Your task to perform on an android device: turn notification dots off Image 0: 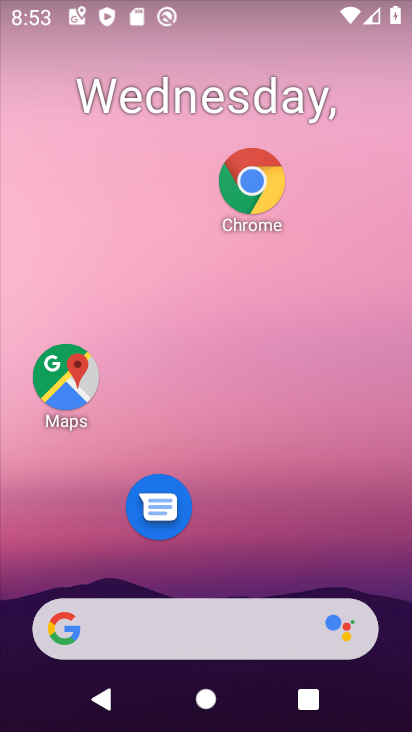
Step 0: drag from (269, 464) to (288, 356)
Your task to perform on an android device: turn notification dots off Image 1: 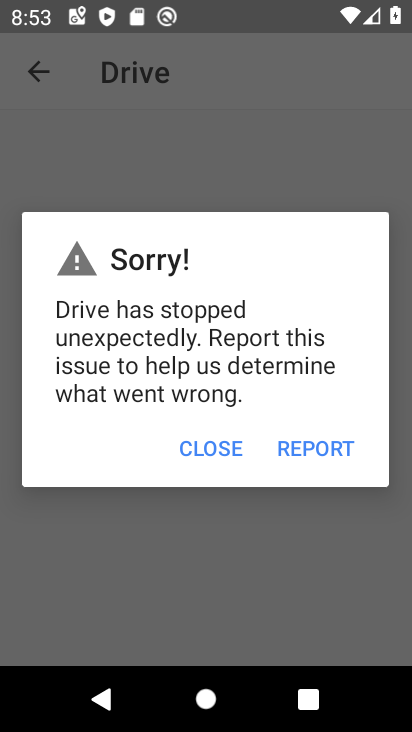
Step 1: press home button
Your task to perform on an android device: turn notification dots off Image 2: 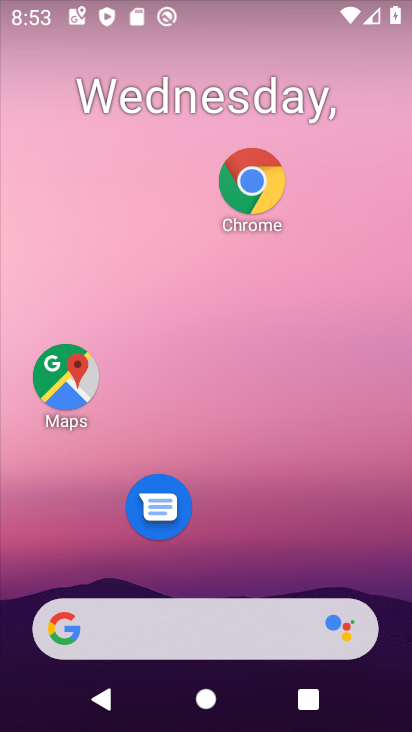
Step 2: drag from (300, 564) to (300, 232)
Your task to perform on an android device: turn notification dots off Image 3: 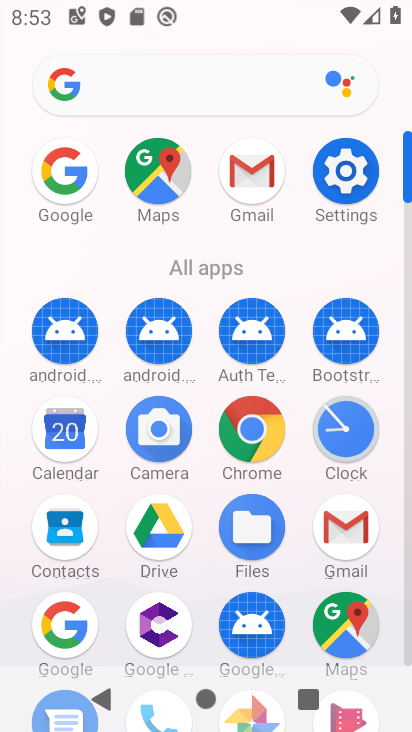
Step 3: click (344, 190)
Your task to perform on an android device: turn notification dots off Image 4: 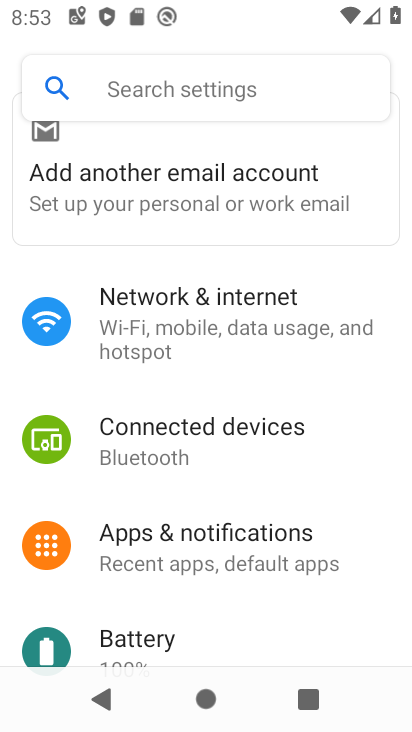
Step 4: drag from (229, 537) to (256, 410)
Your task to perform on an android device: turn notification dots off Image 5: 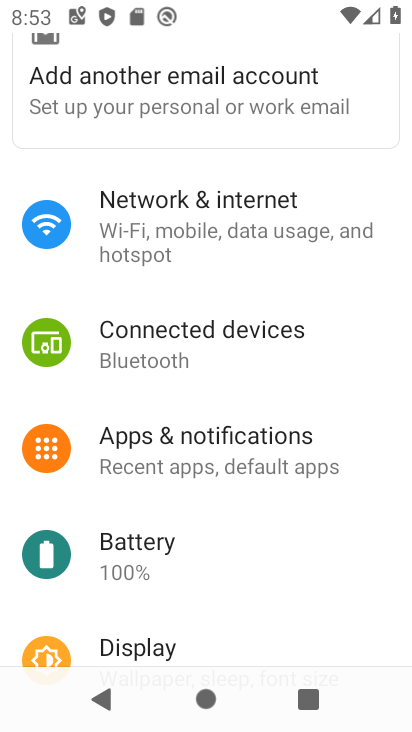
Step 5: click (245, 445)
Your task to perform on an android device: turn notification dots off Image 6: 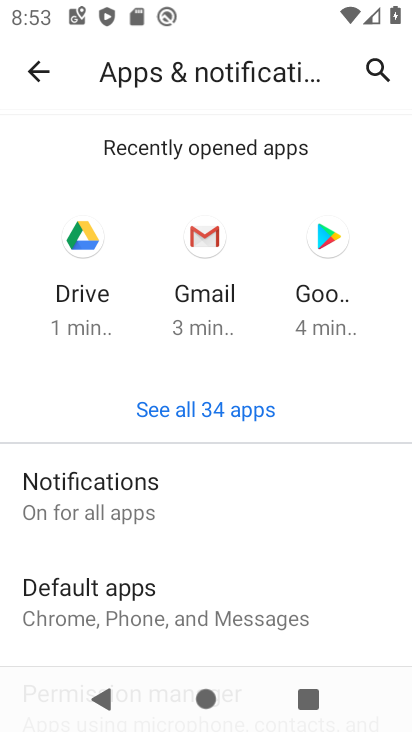
Step 6: click (214, 497)
Your task to perform on an android device: turn notification dots off Image 7: 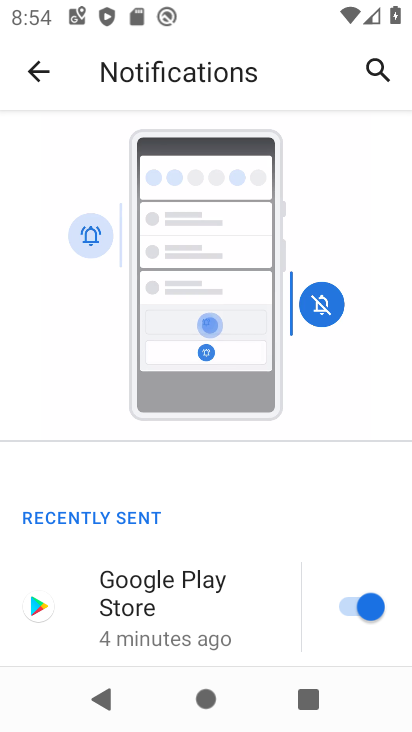
Step 7: drag from (198, 566) to (212, 343)
Your task to perform on an android device: turn notification dots off Image 8: 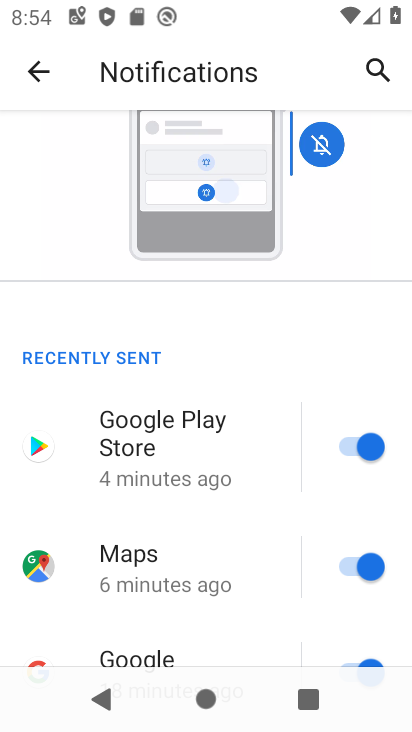
Step 8: drag from (224, 493) to (231, 292)
Your task to perform on an android device: turn notification dots off Image 9: 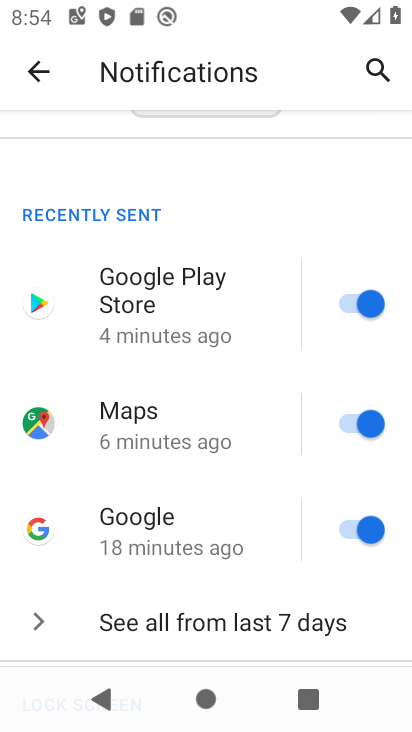
Step 9: drag from (210, 522) to (229, 300)
Your task to perform on an android device: turn notification dots off Image 10: 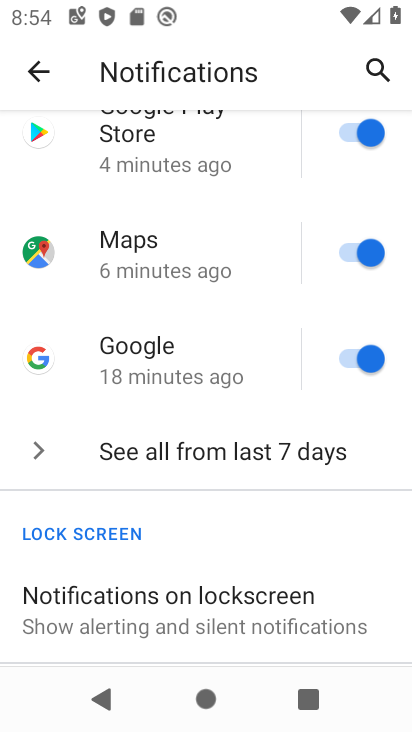
Step 10: drag from (224, 559) to (237, 423)
Your task to perform on an android device: turn notification dots off Image 11: 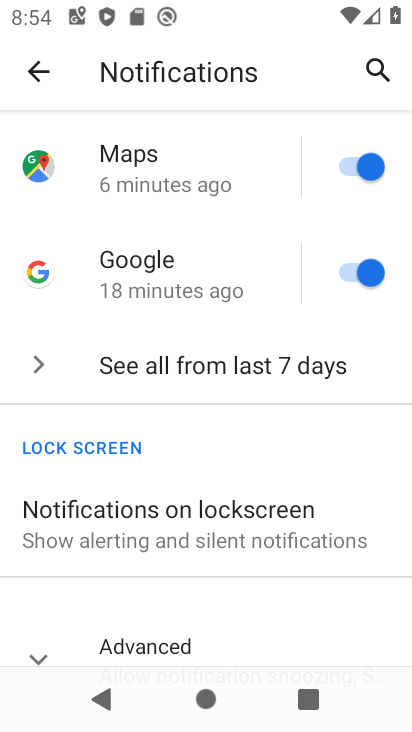
Step 11: click (230, 631)
Your task to perform on an android device: turn notification dots off Image 12: 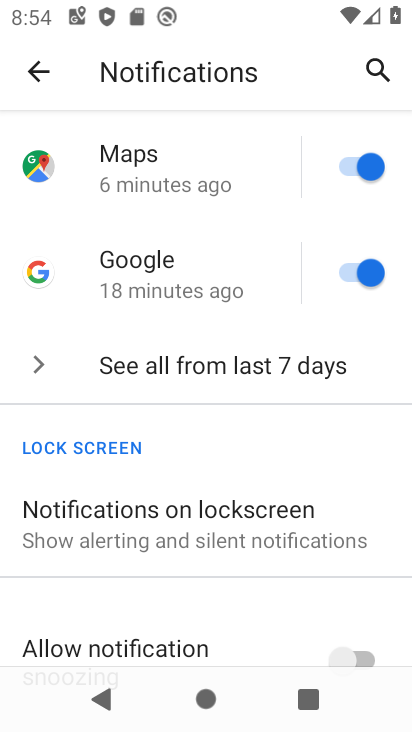
Step 12: drag from (225, 583) to (237, 376)
Your task to perform on an android device: turn notification dots off Image 13: 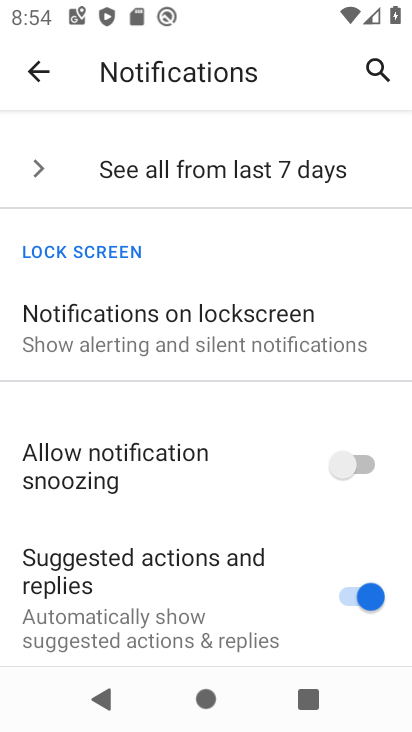
Step 13: drag from (283, 546) to (274, 377)
Your task to perform on an android device: turn notification dots off Image 14: 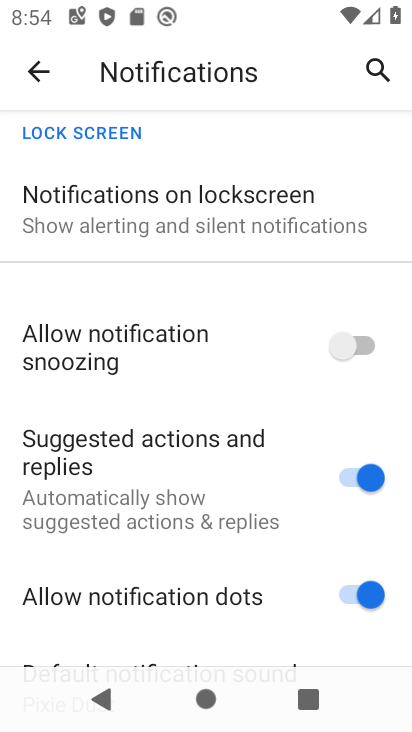
Step 14: click (351, 597)
Your task to perform on an android device: turn notification dots off Image 15: 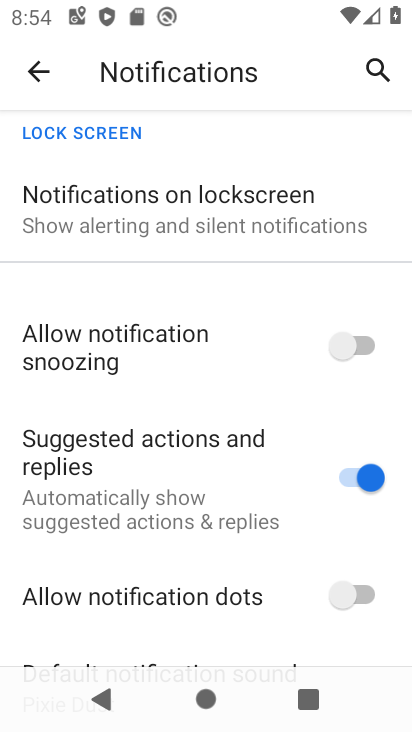
Step 15: task complete